Your task to perform on an android device: toggle notifications settings in the gmail app Image 0: 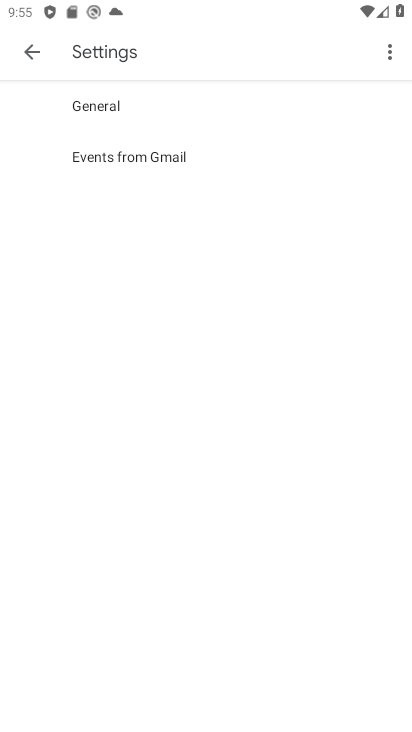
Step 0: press home button
Your task to perform on an android device: toggle notifications settings in the gmail app Image 1: 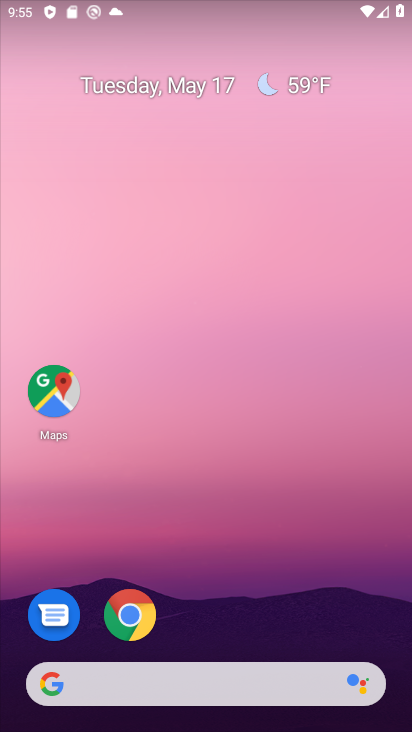
Step 1: drag from (192, 620) to (297, 231)
Your task to perform on an android device: toggle notifications settings in the gmail app Image 2: 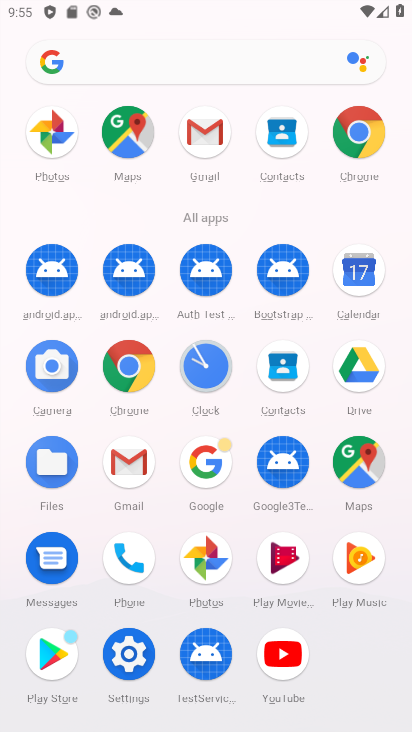
Step 2: click (209, 147)
Your task to perform on an android device: toggle notifications settings in the gmail app Image 3: 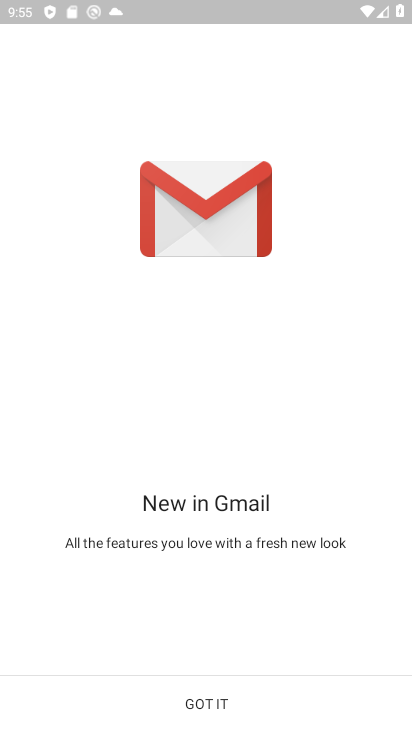
Step 3: click (205, 710)
Your task to perform on an android device: toggle notifications settings in the gmail app Image 4: 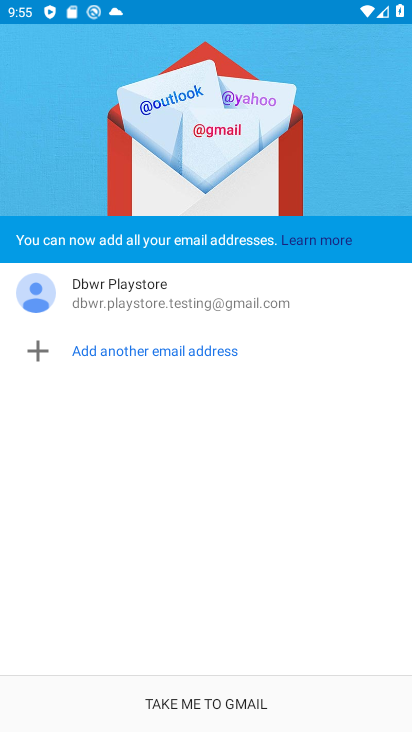
Step 4: click (216, 701)
Your task to perform on an android device: toggle notifications settings in the gmail app Image 5: 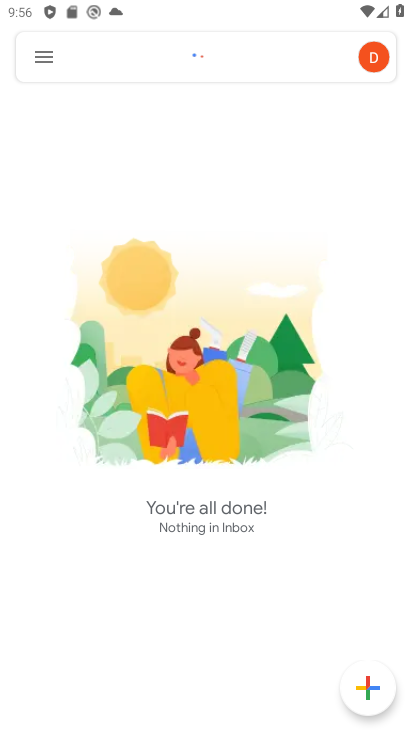
Step 5: click (37, 52)
Your task to perform on an android device: toggle notifications settings in the gmail app Image 6: 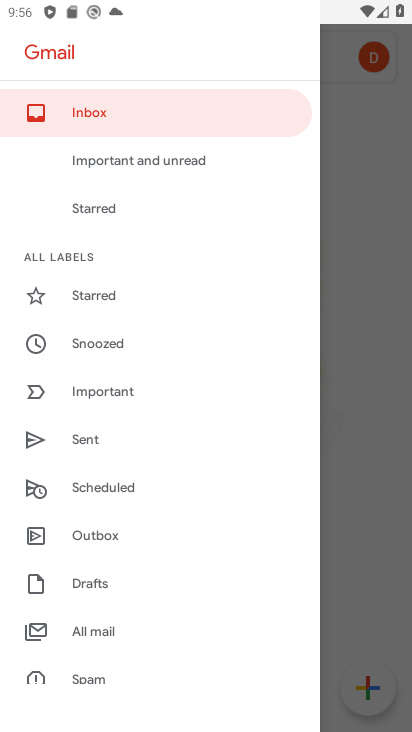
Step 6: drag from (190, 644) to (248, 195)
Your task to perform on an android device: toggle notifications settings in the gmail app Image 7: 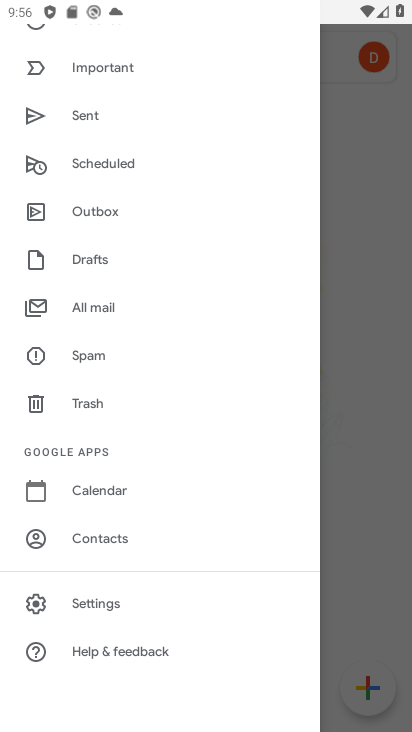
Step 7: click (109, 603)
Your task to perform on an android device: toggle notifications settings in the gmail app Image 8: 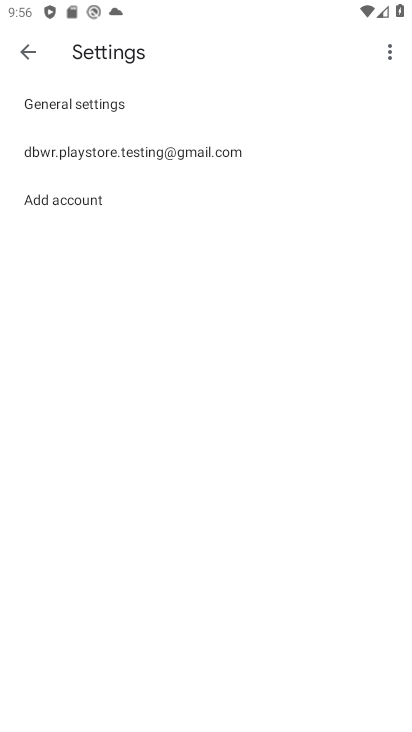
Step 8: click (153, 157)
Your task to perform on an android device: toggle notifications settings in the gmail app Image 9: 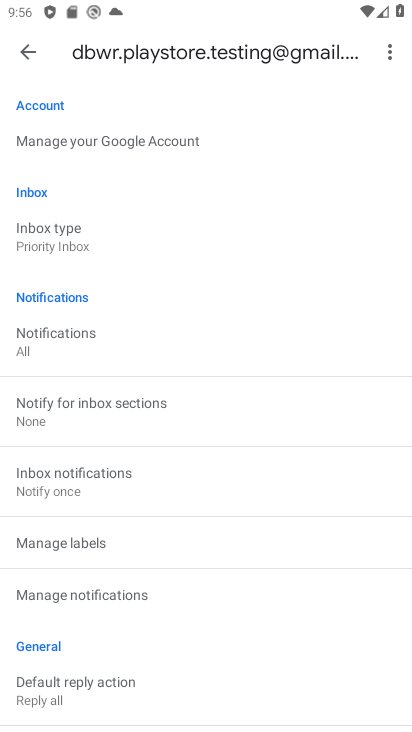
Step 9: click (36, 340)
Your task to perform on an android device: toggle notifications settings in the gmail app Image 10: 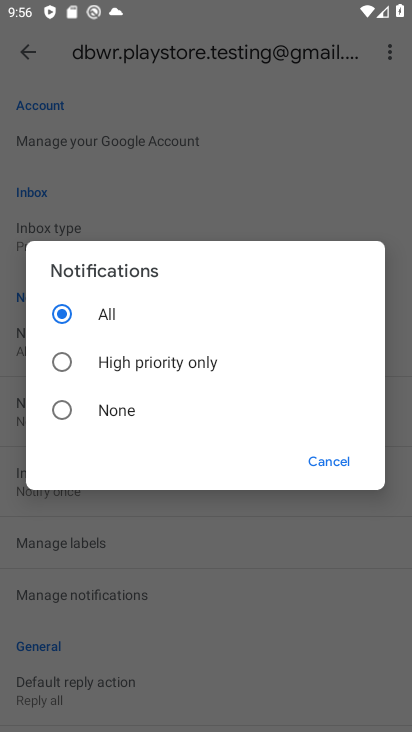
Step 10: click (56, 407)
Your task to perform on an android device: toggle notifications settings in the gmail app Image 11: 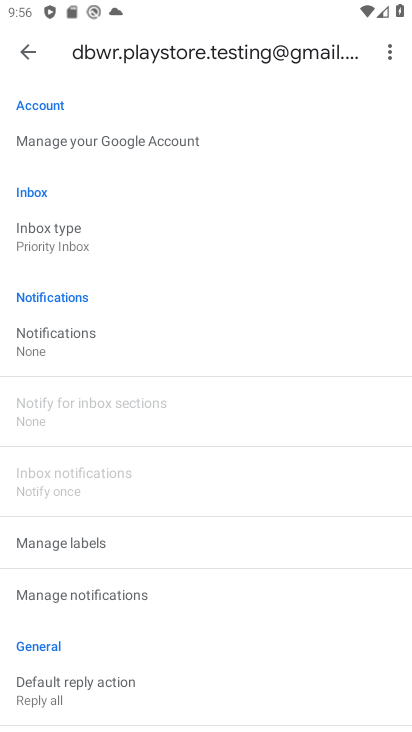
Step 11: task complete